Your task to perform on an android device: Open the web browser Image 0: 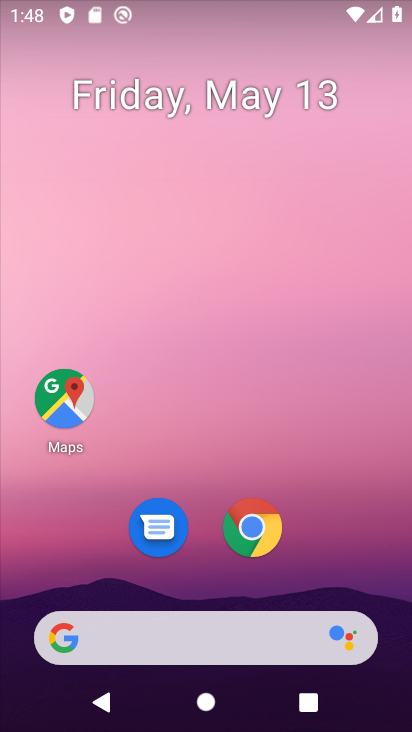
Step 0: drag from (320, 531) to (252, 116)
Your task to perform on an android device: Open the web browser Image 1: 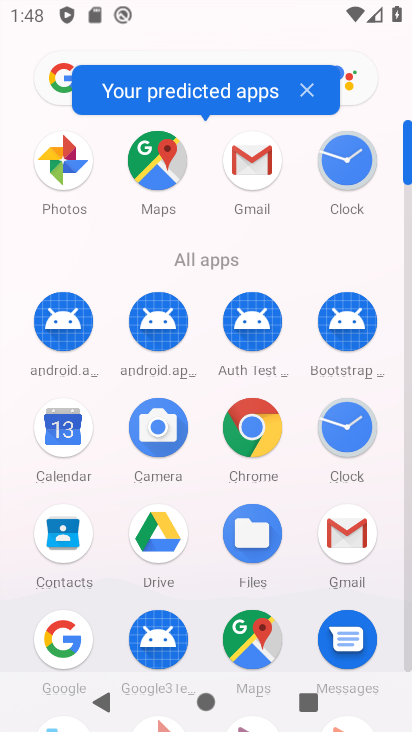
Step 1: click (249, 438)
Your task to perform on an android device: Open the web browser Image 2: 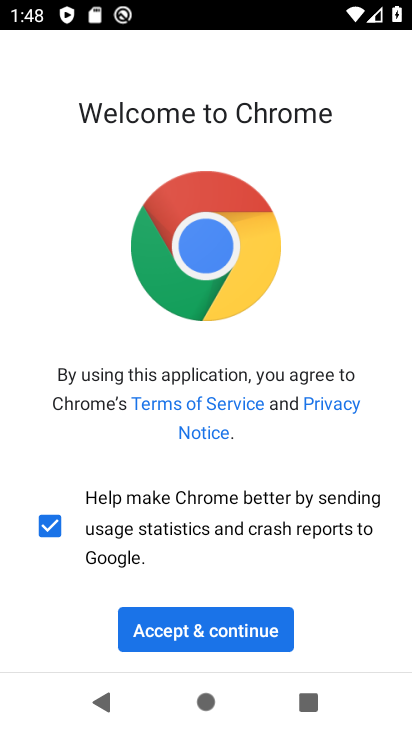
Step 2: click (257, 619)
Your task to perform on an android device: Open the web browser Image 3: 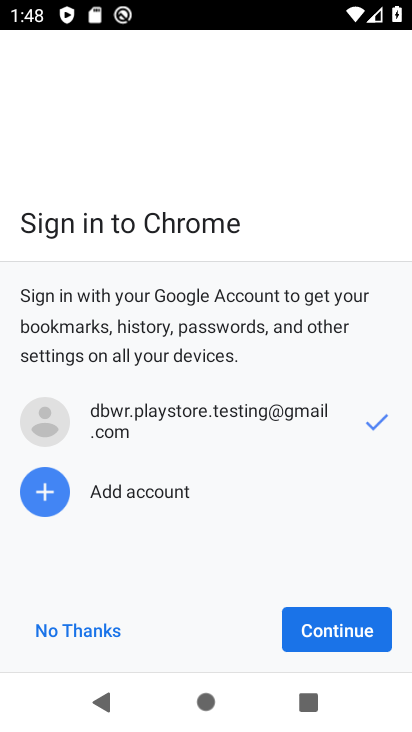
Step 3: click (369, 641)
Your task to perform on an android device: Open the web browser Image 4: 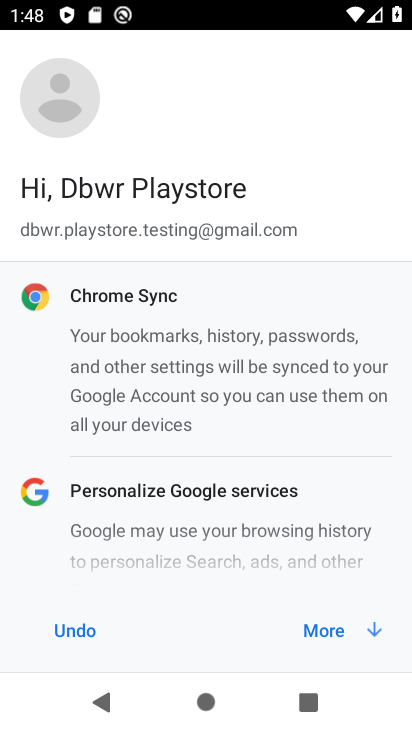
Step 4: click (325, 646)
Your task to perform on an android device: Open the web browser Image 5: 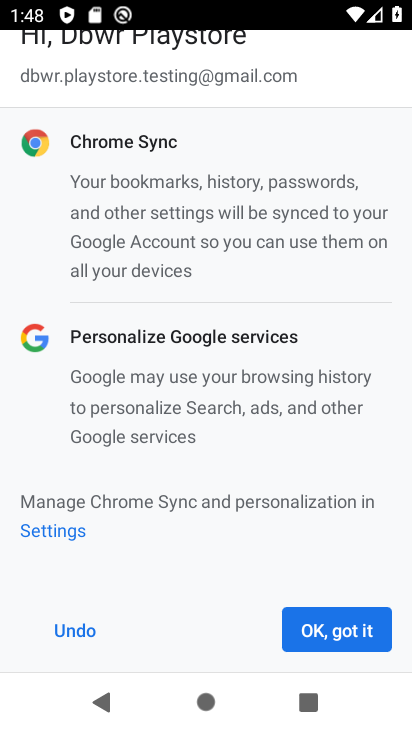
Step 5: click (325, 646)
Your task to perform on an android device: Open the web browser Image 6: 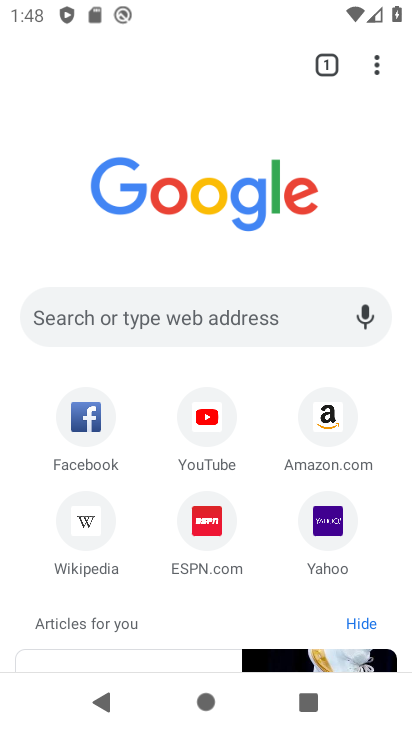
Step 6: task complete